Your task to perform on an android device: open a bookmark in the chrome app Image 0: 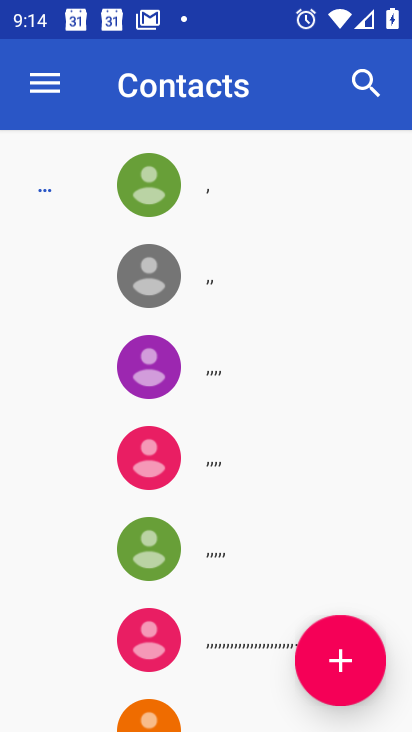
Step 0: press home button
Your task to perform on an android device: open a bookmark in the chrome app Image 1: 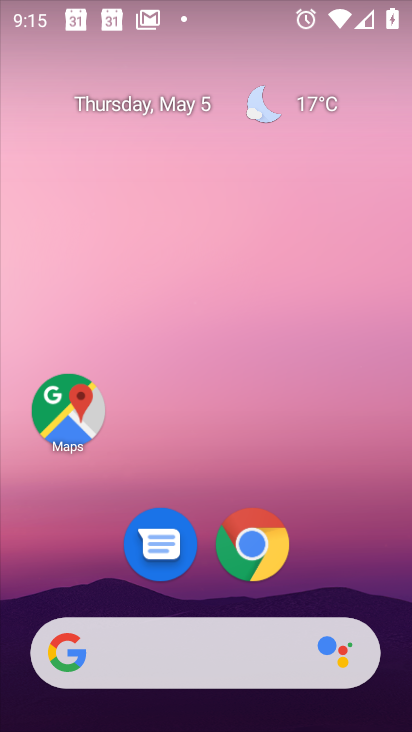
Step 1: click (279, 531)
Your task to perform on an android device: open a bookmark in the chrome app Image 2: 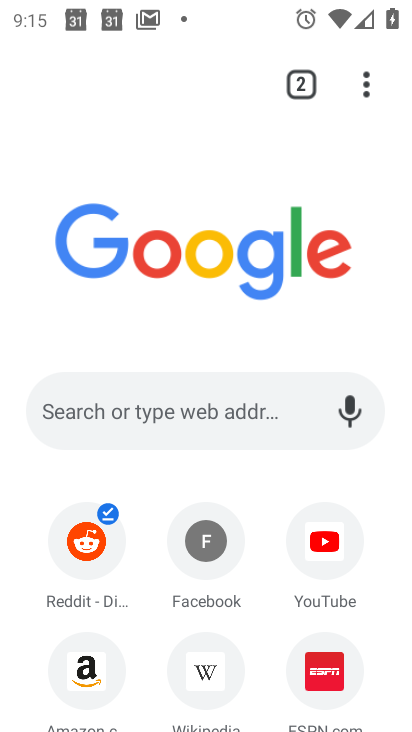
Step 2: click (375, 89)
Your task to perform on an android device: open a bookmark in the chrome app Image 3: 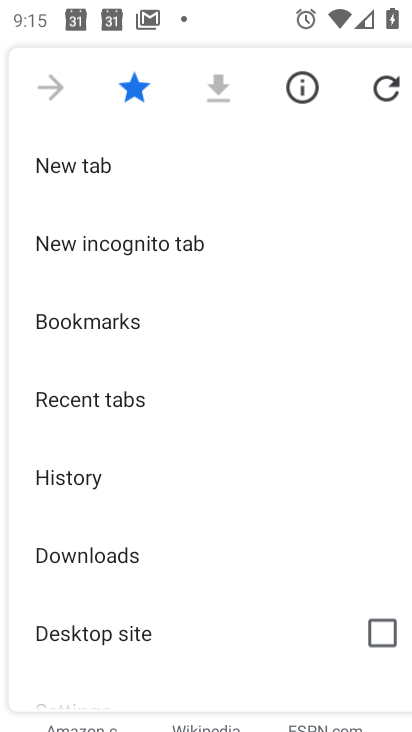
Step 3: click (204, 330)
Your task to perform on an android device: open a bookmark in the chrome app Image 4: 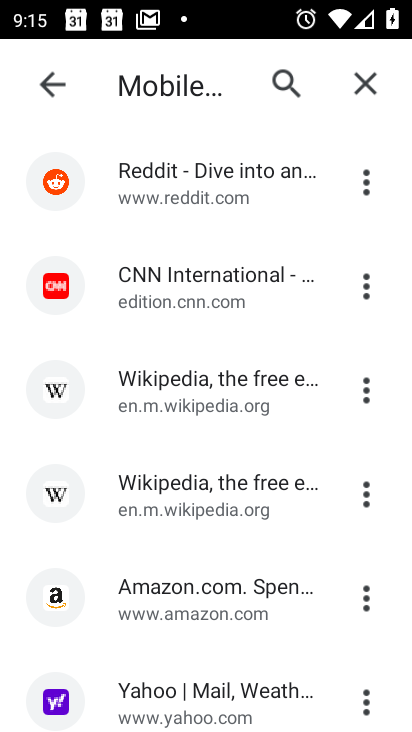
Step 4: click (175, 464)
Your task to perform on an android device: open a bookmark in the chrome app Image 5: 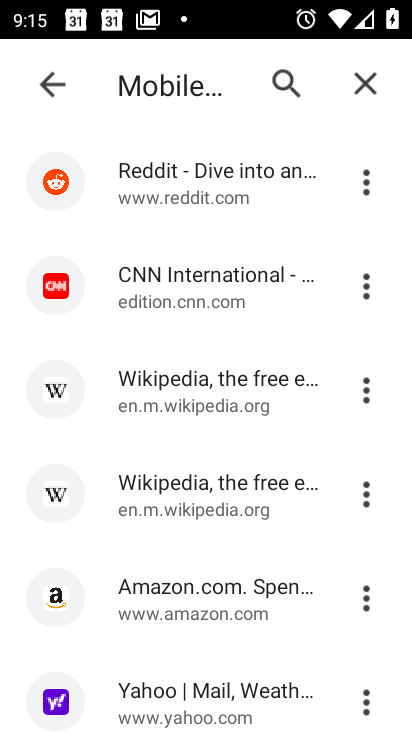
Step 5: task complete